Your task to perform on an android device: change notification settings in the gmail app Image 0: 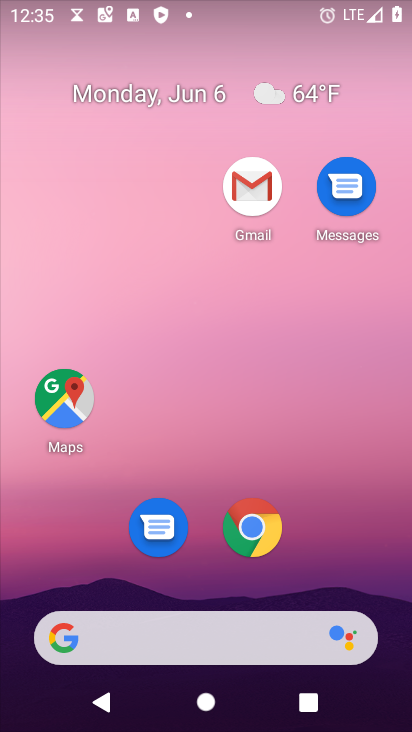
Step 0: drag from (302, 487) to (265, 42)
Your task to perform on an android device: change notification settings in the gmail app Image 1: 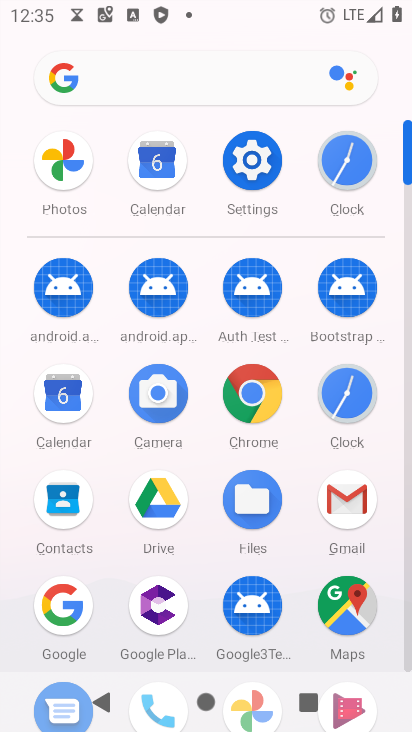
Step 1: click (340, 505)
Your task to perform on an android device: change notification settings in the gmail app Image 2: 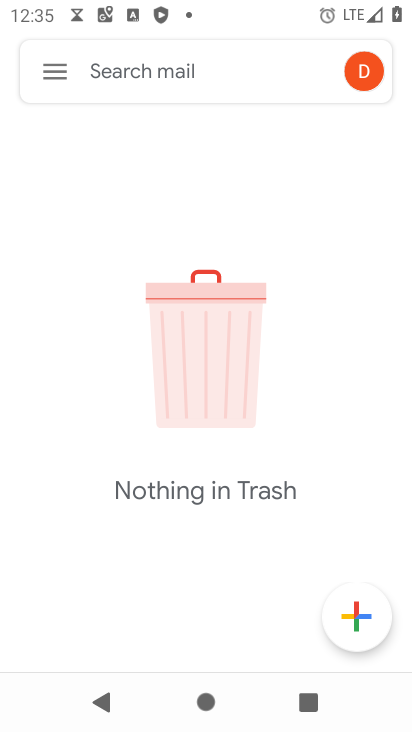
Step 2: click (69, 71)
Your task to perform on an android device: change notification settings in the gmail app Image 3: 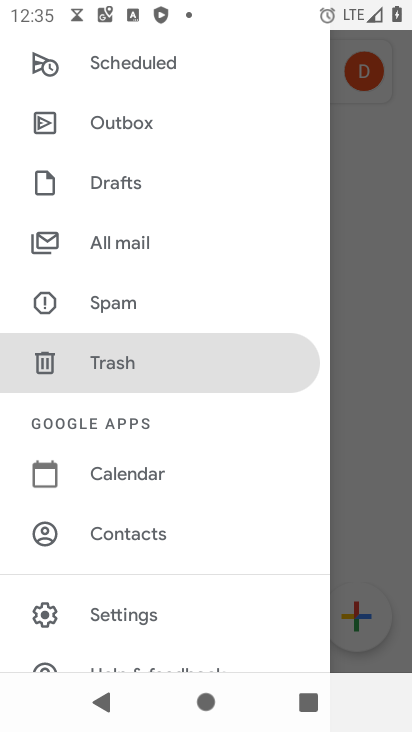
Step 3: click (138, 616)
Your task to perform on an android device: change notification settings in the gmail app Image 4: 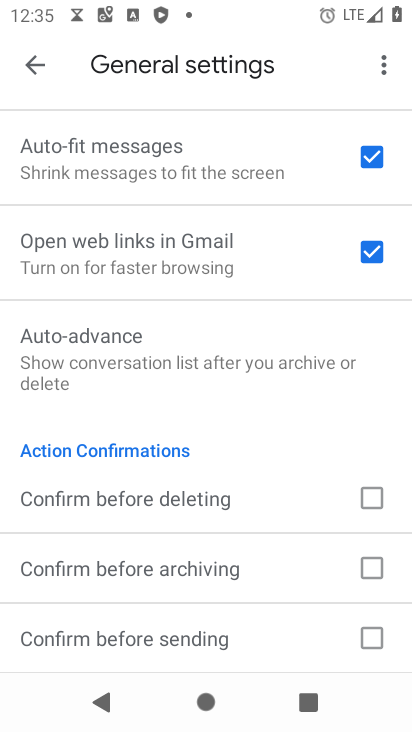
Step 4: drag from (234, 208) to (252, 561)
Your task to perform on an android device: change notification settings in the gmail app Image 5: 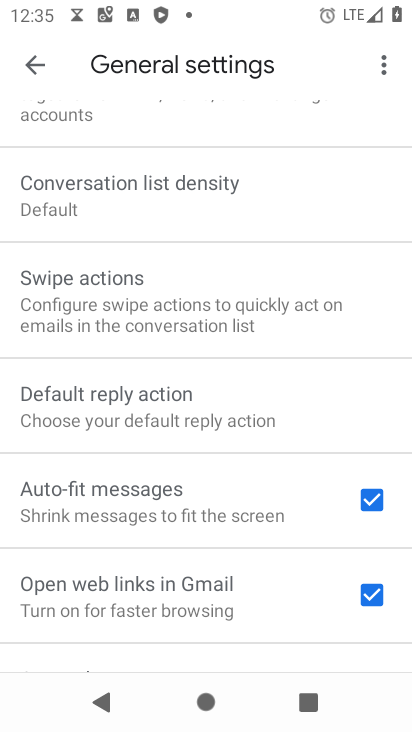
Step 5: drag from (237, 219) to (227, 645)
Your task to perform on an android device: change notification settings in the gmail app Image 6: 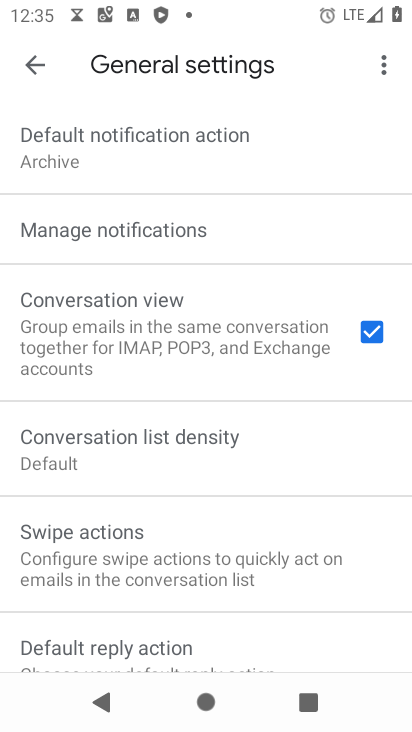
Step 6: click (157, 231)
Your task to perform on an android device: change notification settings in the gmail app Image 7: 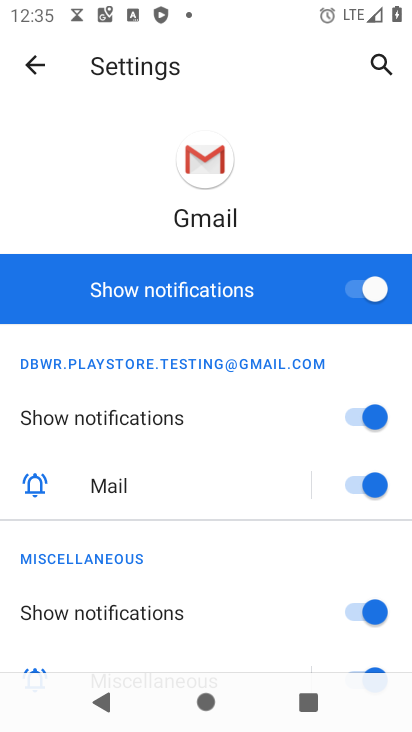
Step 7: drag from (258, 583) to (267, 321)
Your task to perform on an android device: change notification settings in the gmail app Image 8: 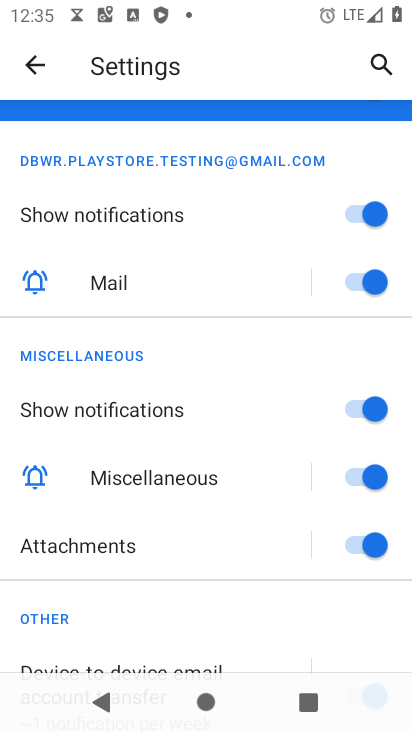
Step 8: click (359, 477)
Your task to perform on an android device: change notification settings in the gmail app Image 9: 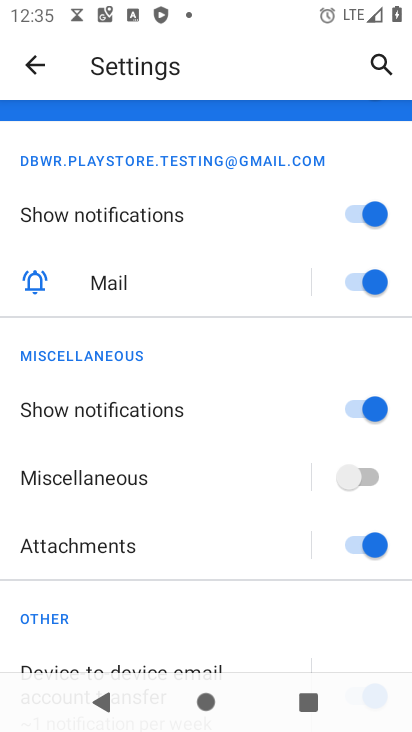
Step 9: task complete